Your task to perform on an android device: show emergency info Image 0: 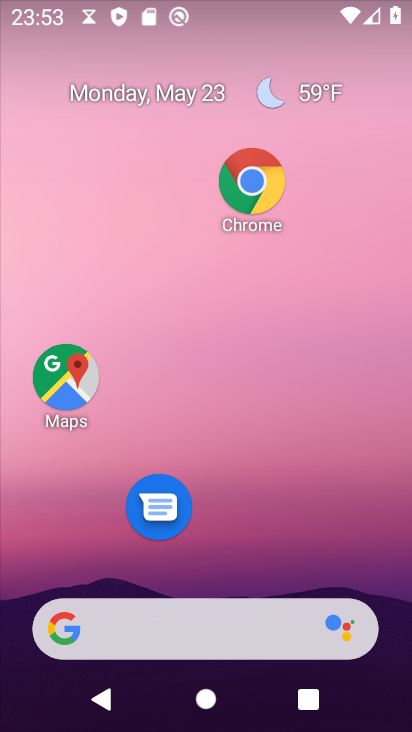
Step 0: drag from (238, 543) to (305, 298)
Your task to perform on an android device: show emergency info Image 1: 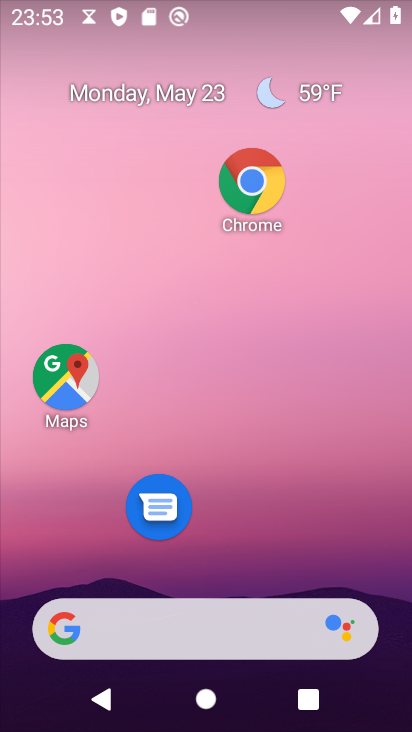
Step 1: drag from (331, 533) to (339, 306)
Your task to perform on an android device: show emergency info Image 2: 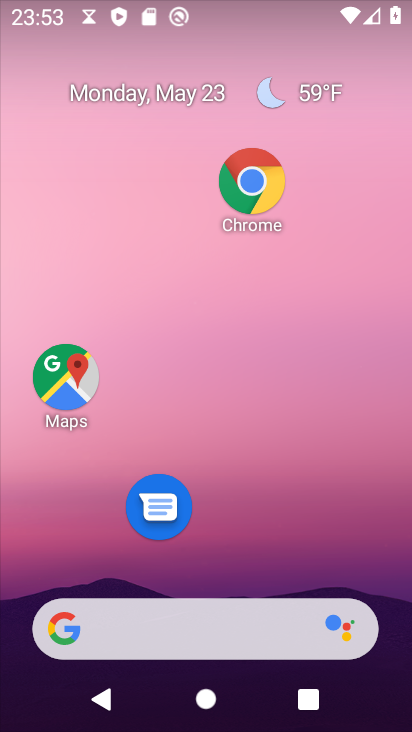
Step 2: drag from (360, 441) to (368, 122)
Your task to perform on an android device: show emergency info Image 3: 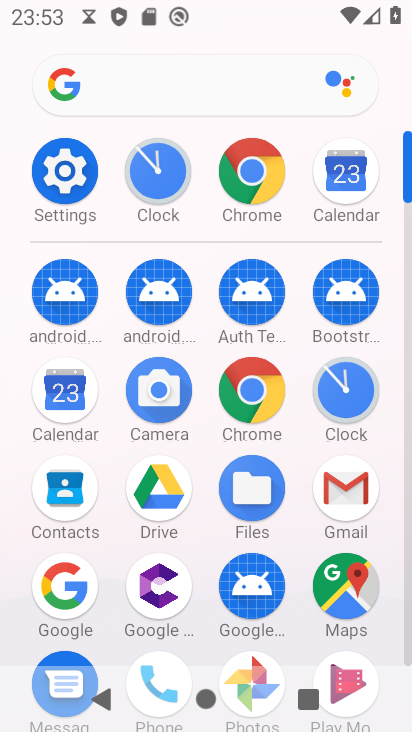
Step 3: click (44, 175)
Your task to perform on an android device: show emergency info Image 4: 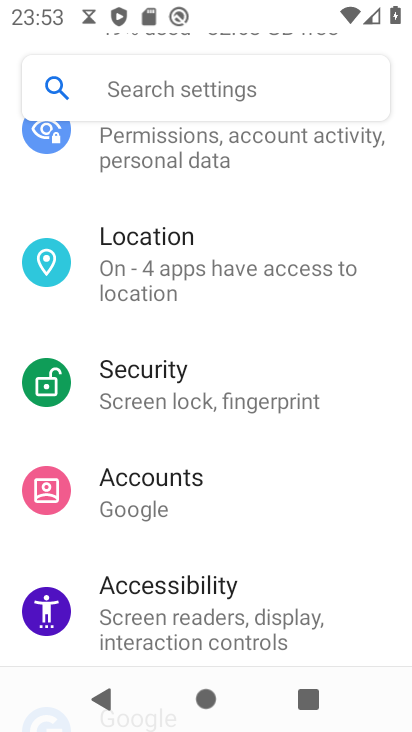
Step 4: click (309, 601)
Your task to perform on an android device: show emergency info Image 5: 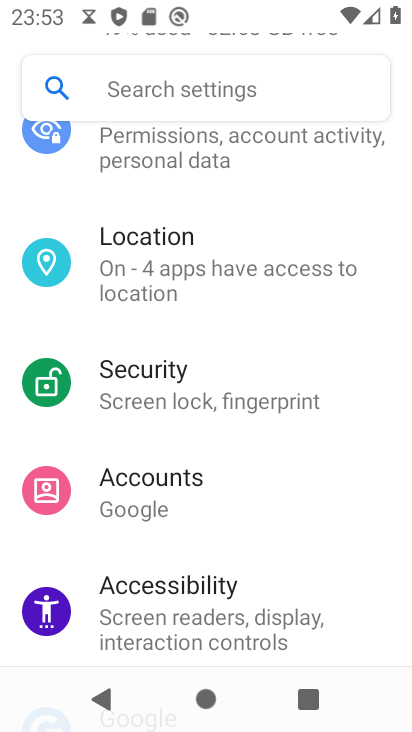
Step 5: drag from (305, 553) to (303, 110)
Your task to perform on an android device: show emergency info Image 6: 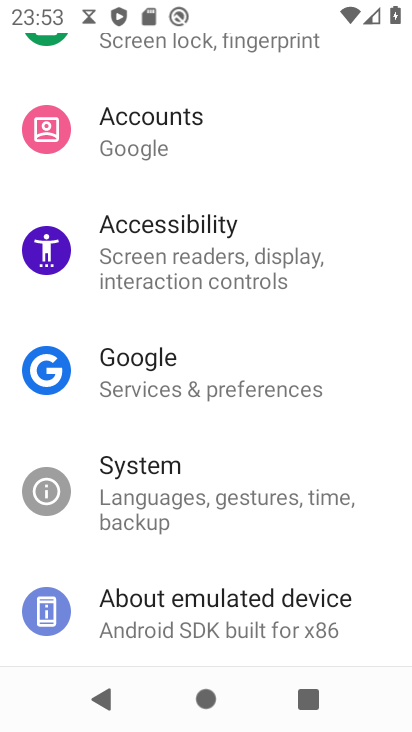
Step 6: click (263, 606)
Your task to perform on an android device: show emergency info Image 7: 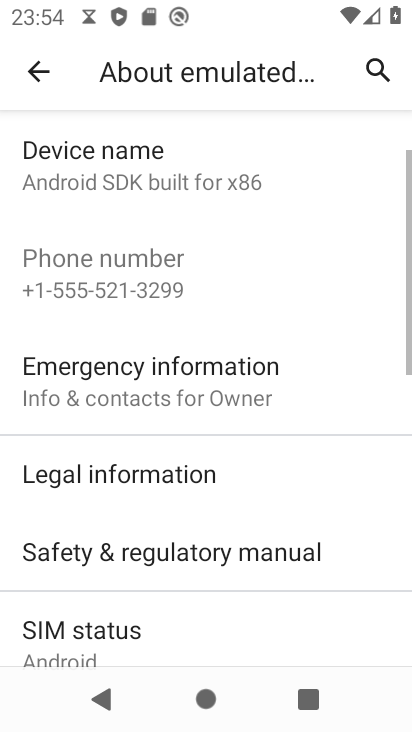
Step 7: click (106, 386)
Your task to perform on an android device: show emergency info Image 8: 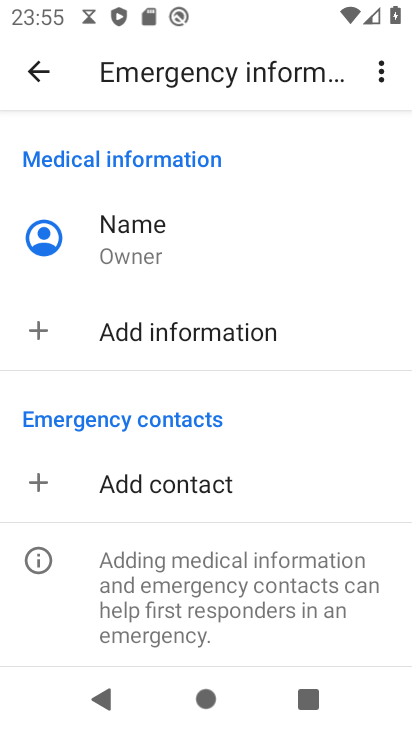
Step 8: task complete